Your task to perform on an android device: Open Google Chrome and click the shortcut for Amazon.com Image 0: 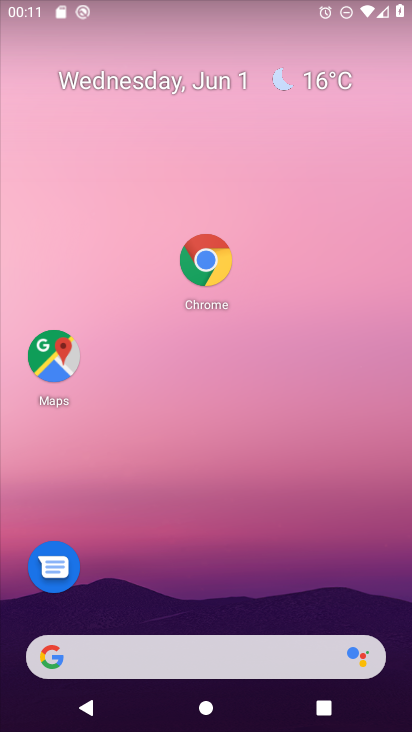
Step 0: click (192, 264)
Your task to perform on an android device: Open Google Chrome and click the shortcut for Amazon.com Image 1: 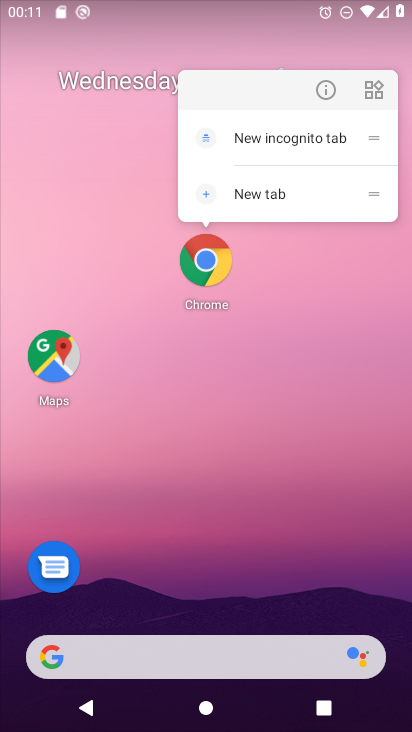
Step 1: click (214, 262)
Your task to perform on an android device: Open Google Chrome and click the shortcut for Amazon.com Image 2: 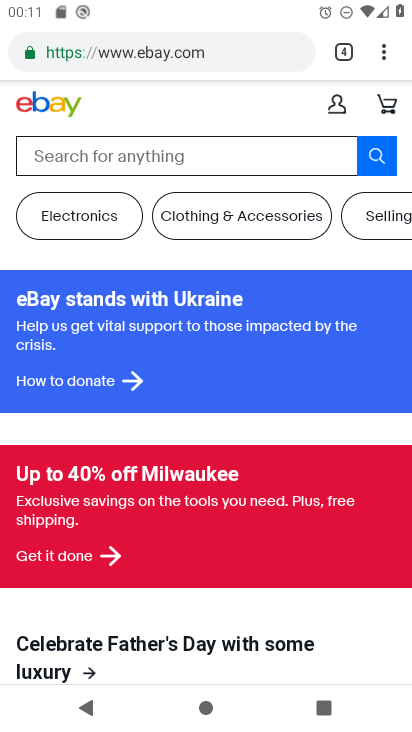
Step 2: click (351, 48)
Your task to perform on an android device: Open Google Chrome and click the shortcut for Amazon.com Image 3: 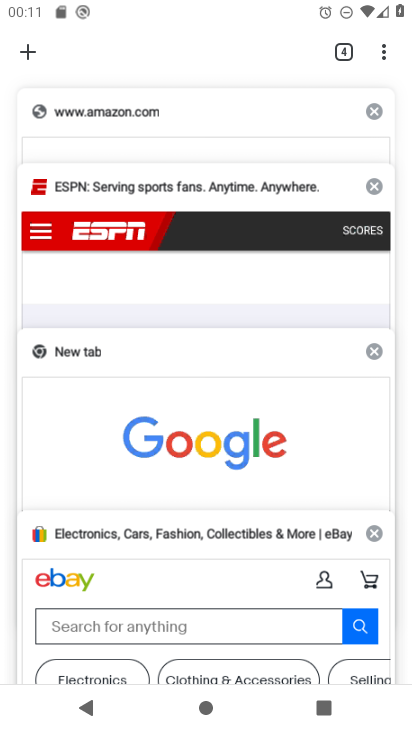
Step 3: click (276, 131)
Your task to perform on an android device: Open Google Chrome and click the shortcut for Amazon.com Image 4: 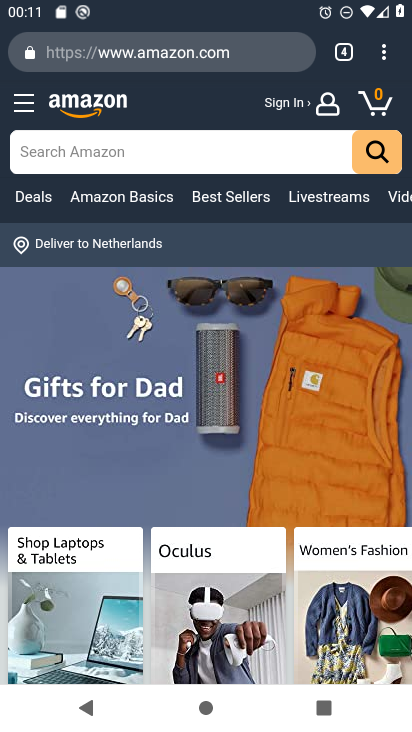
Step 4: task complete